Your task to perform on an android device: Open the stopwatch Image 0: 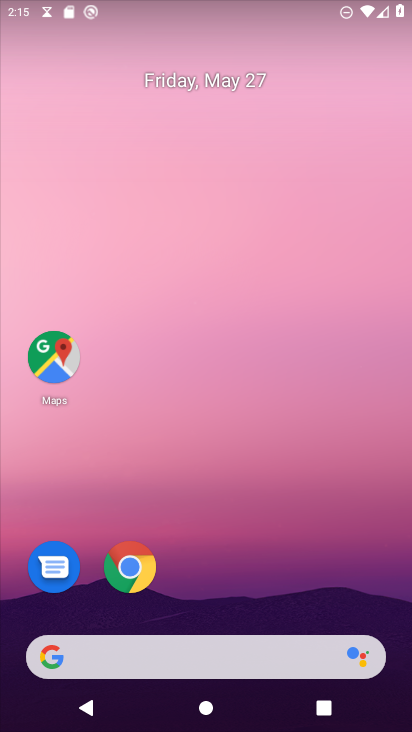
Step 0: drag from (206, 621) to (203, 320)
Your task to perform on an android device: Open the stopwatch Image 1: 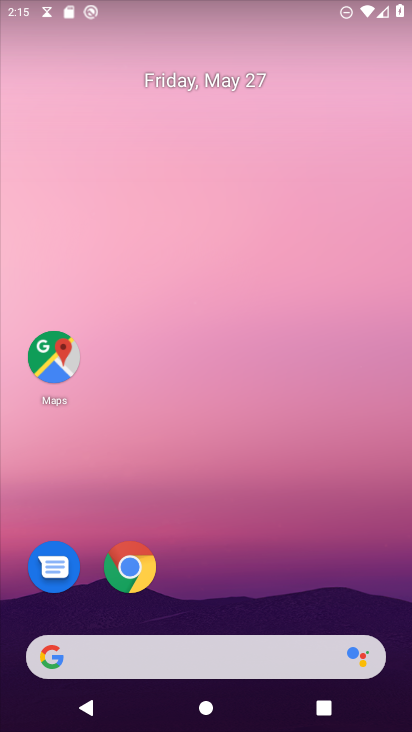
Step 1: drag from (223, 622) to (210, 197)
Your task to perform on an android device: Open the stopwatch Image 2: 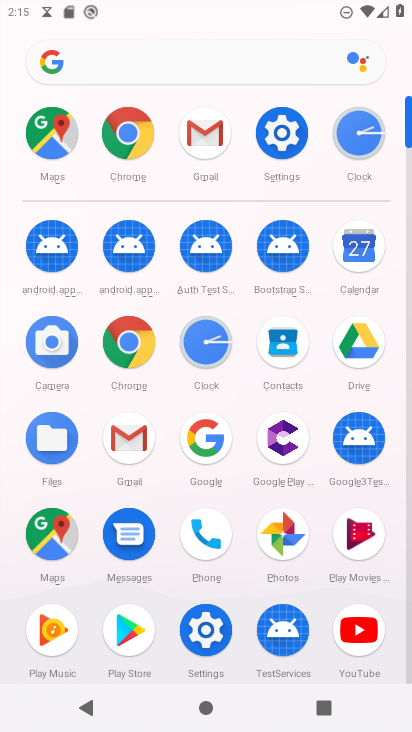
Step 2: click (359, 143)
Your task to perform on an android device: Open the stopwatch Image 3: 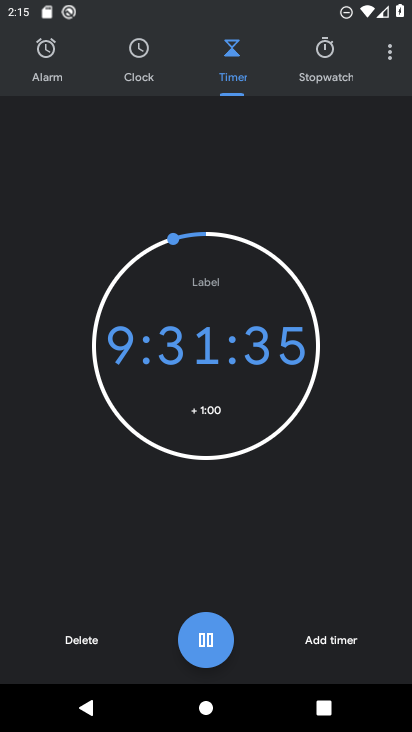
Step 3: click (332, 72)
Your task to perform on an android device: Open the stopwatch Image 4: 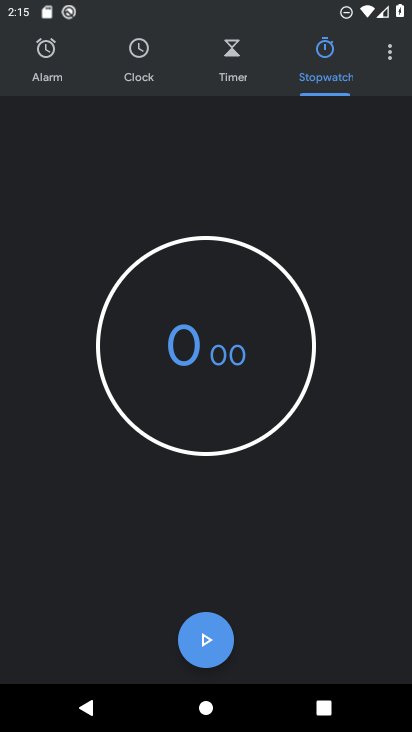
Step 4: task complete